Your task to perform on an android device: turn on notifications settings in the gmail app Image 0: 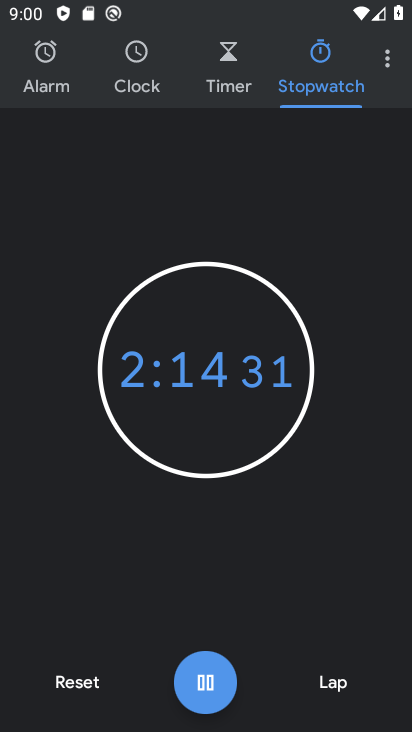
Step 0: press home button
Your task to perform on an android device: turn on notifications settings in the gmail app Image 1: 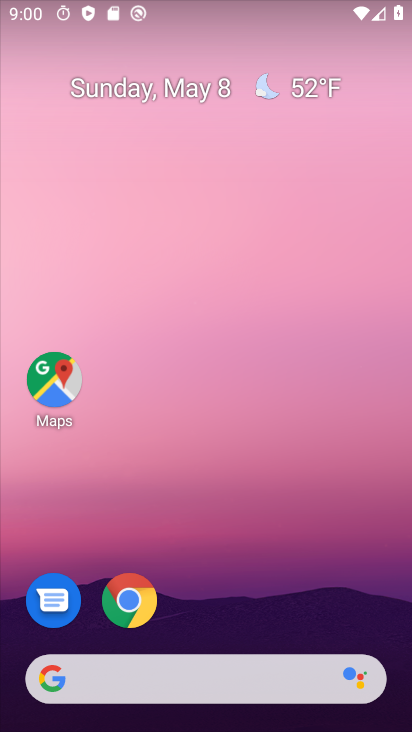
Step 1: drag from (342, 605) to (315, 121)
Your task to perform on an android device: turn on notifications settings in the gmail app Image 2: 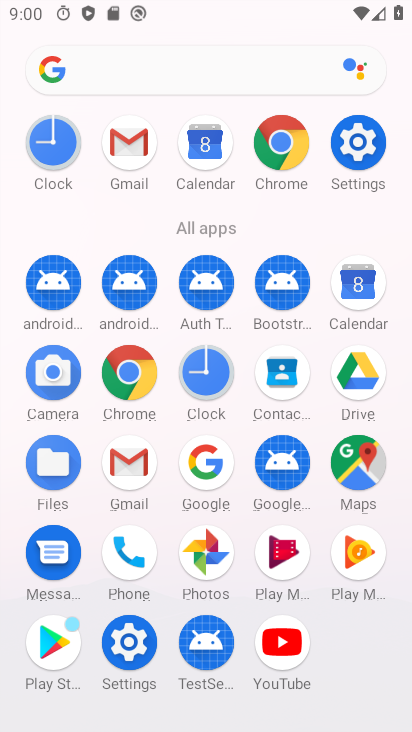
Step 2: click (112, 150)
Your task to perform on an android device: turn on notifications settings in the gmail app Image 3: 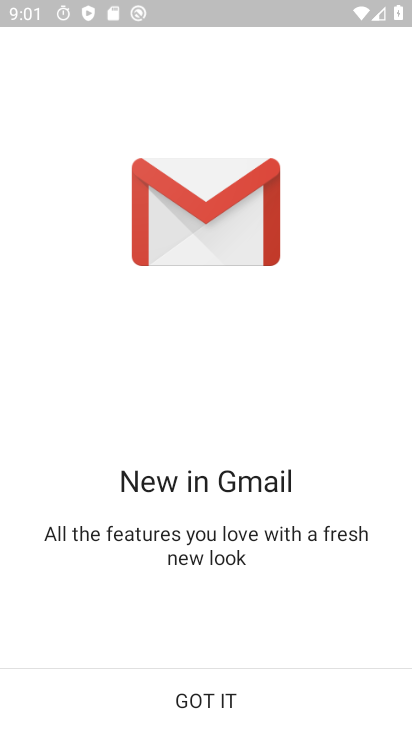
Step 3: click (243, 714)
Your task to perform on an android device: turn on notifications settings in the gmail app Image 4: 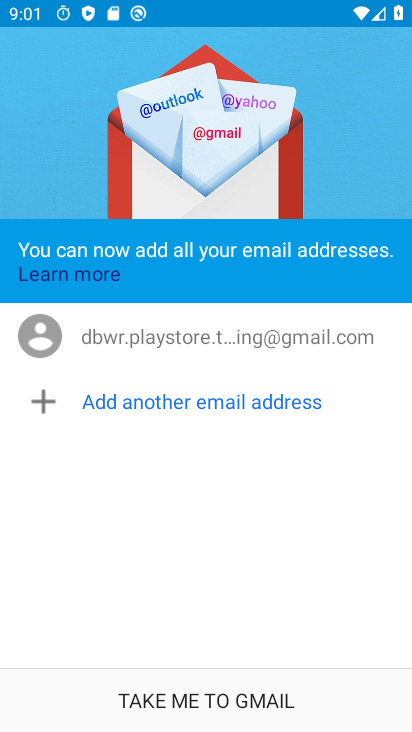
Step 4: click (243, 714)
Your task to perform on an android device: turn on notifications settings in the gmail app Image 5: 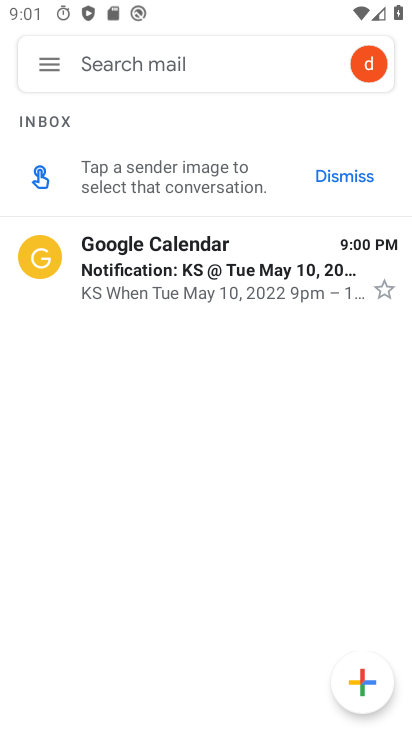
Step 5: click (46, 66)
Your task to perform on an android device: turn on notifications settings in the gmail app Image 6: 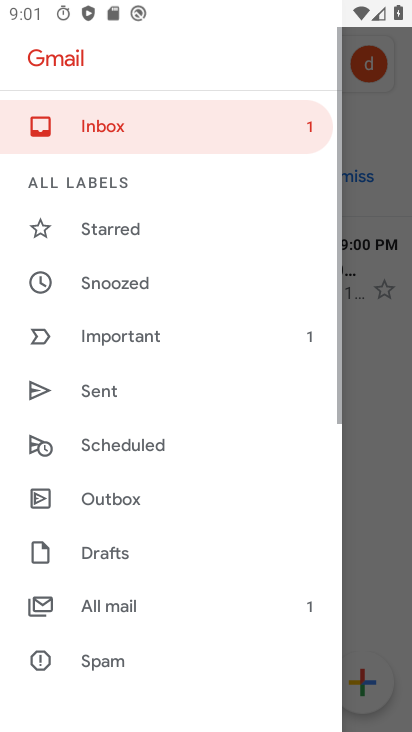
Step 6: drag from (96, 650) to (148, 116)
Your task to perform on an android device: turn on notifications settings in the gmail app Image 7: 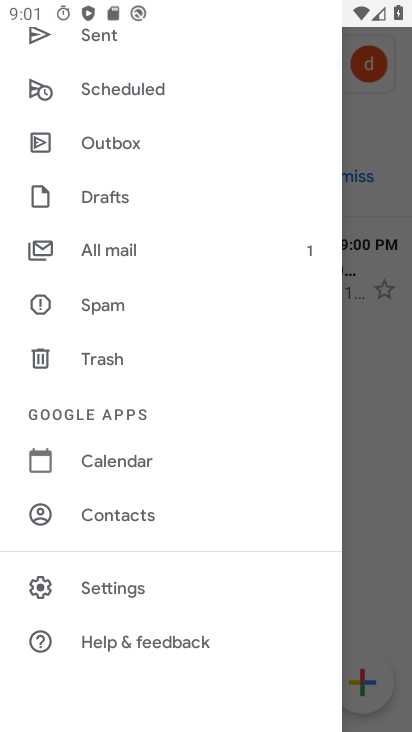
Step 7: click (87, 589)
Your task to perform on an android device: turn on notifications settings in the gmail app Image 8: 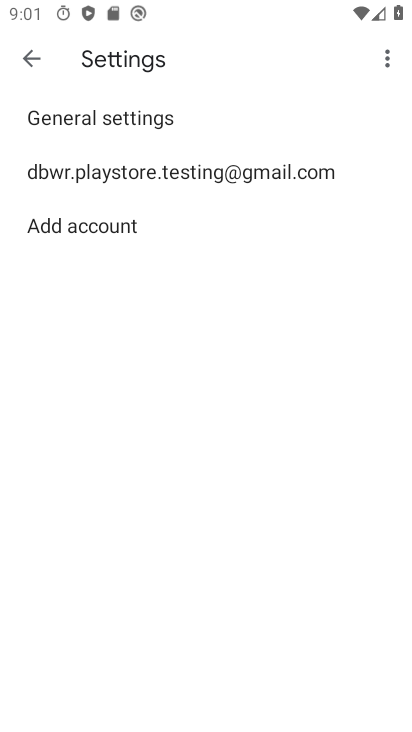
Step 8: click (189, 180)
Your task to perform on an android device: turn on notifications settings in the gmail app Image 9: 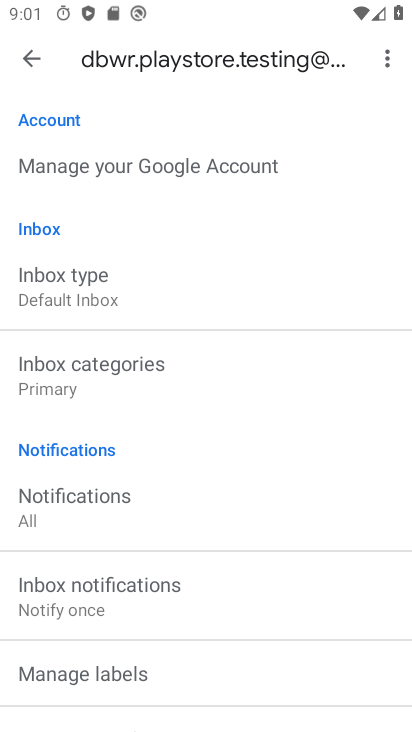
Step 9: click (105, 504)
Your task to perform on an android device: turn on notifications settings in the gmail app Image 10: 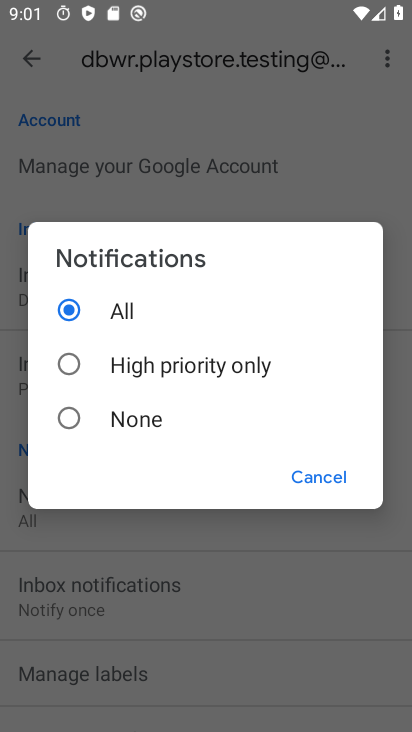
Step 10: click (147, 369)
Your task to perform on an android device: turn on notifications settings in the gmail app Image 11: 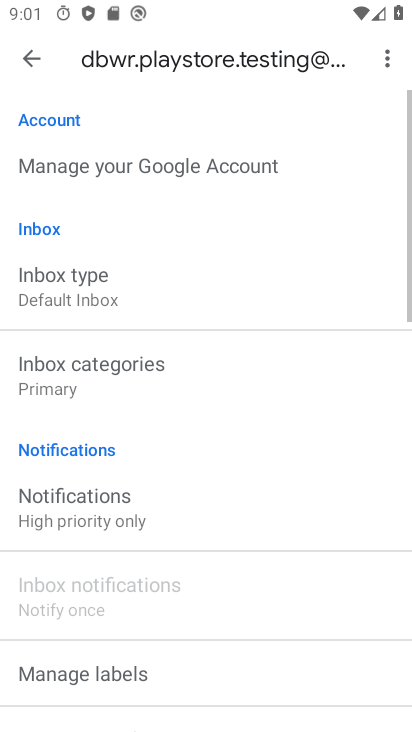
Step 11: task complete